Your task to perform on an android device: delete a single message in the gmail app Image 0: 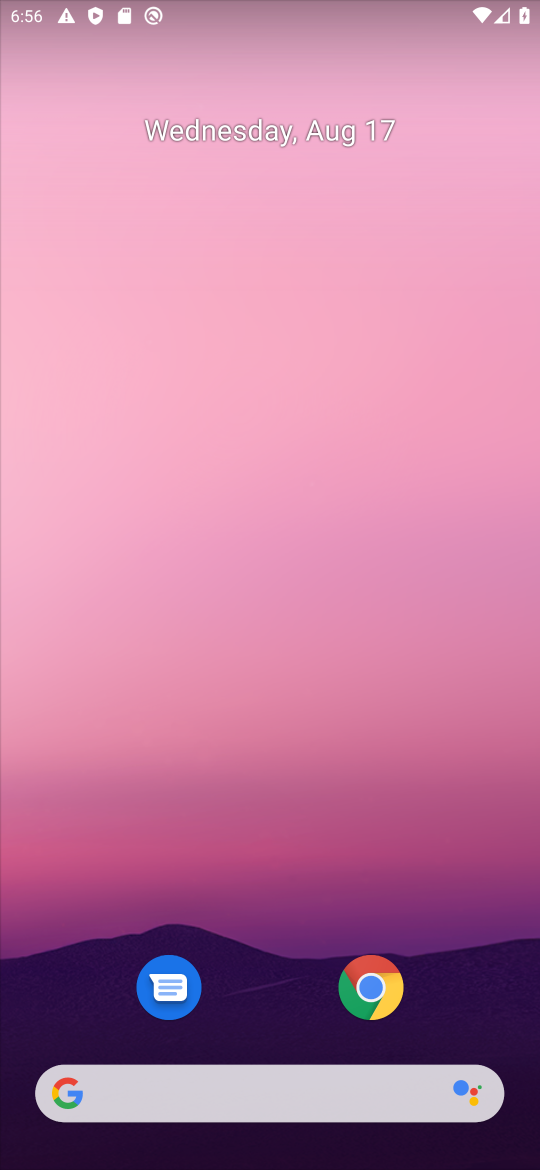
Step 0: drag from (512, 1011) to (215, 46)
Your task to perform on an android device: delete a single message in the gmail app Image 1: 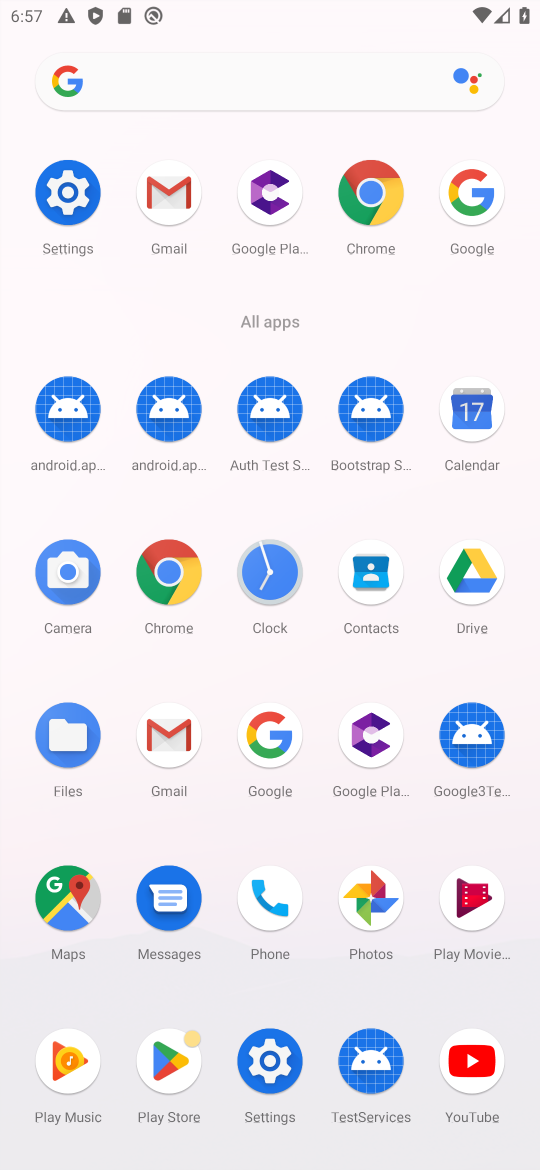
Step 1: click (159, 737)
Your task to perform on an android device: delete a single message in the gmail app Image 2: 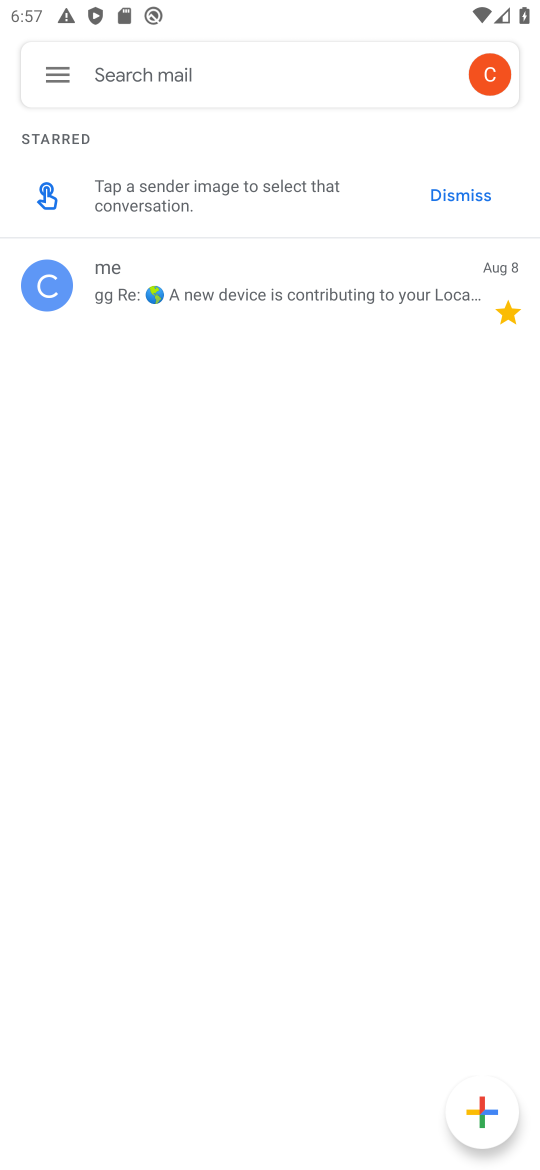
Step 2: click (60, 76)
Your task to perform on an android device: delete a single message in the gmail app Image 3: 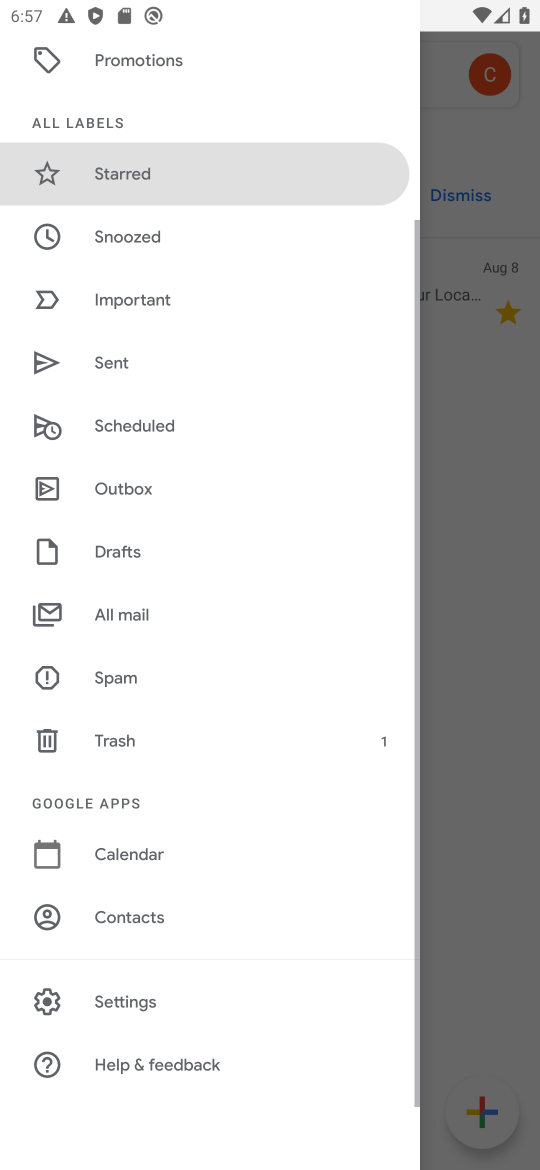
Step 3: drag from (73, 118) to (188, 1044)
Your task to perform on an android device: delete a single message in the gmail app Image 4: 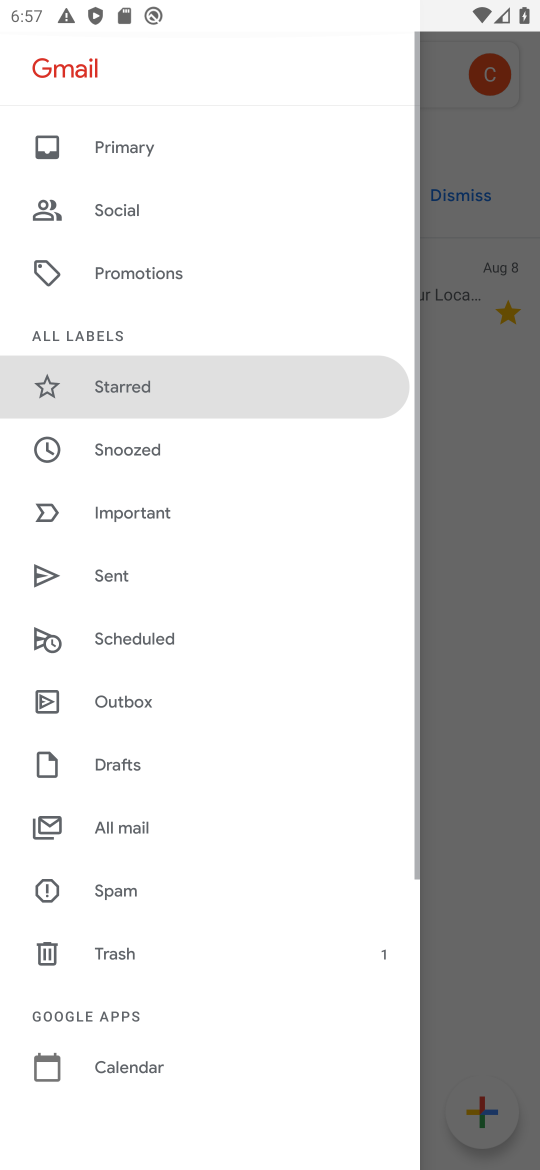
Step 4: click (123, 151)
Your task to perform on an android device: delete a single message in the gmail app Image 5: 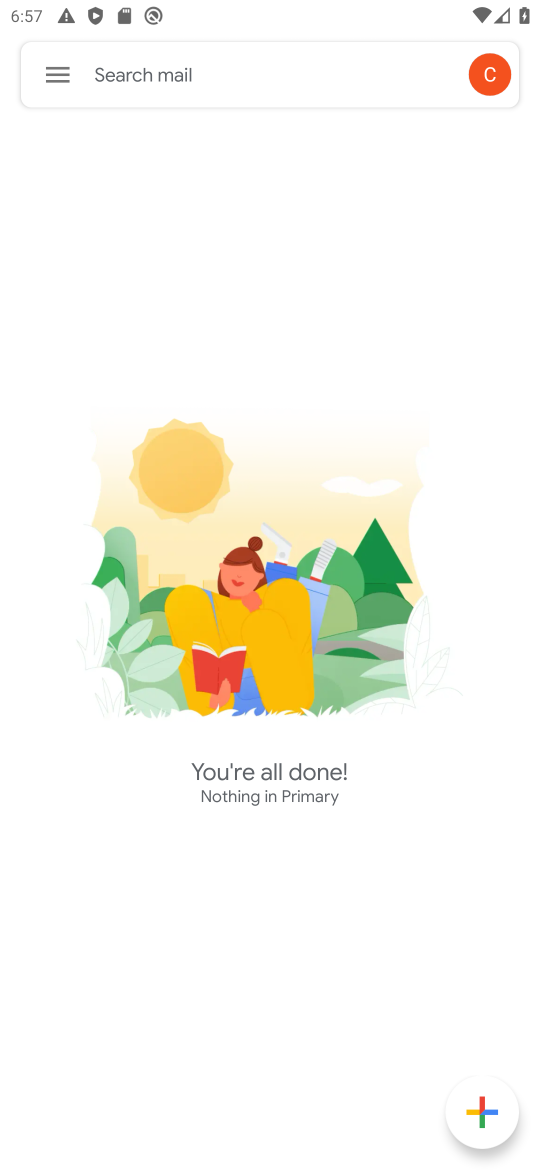
Step 5: task complete